Your task to perform on an android device: empty trash in the gmail app Image 0: 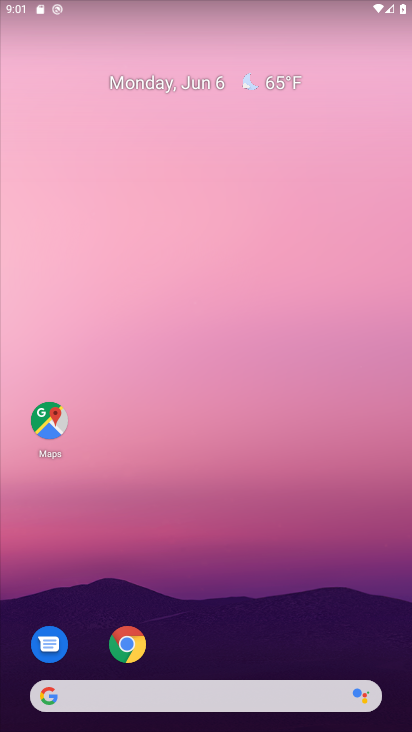
Step 0: drag from (368, 598) to (331, 93)
Your task to perform on an android device: empty trash in the gmail app Image 1: 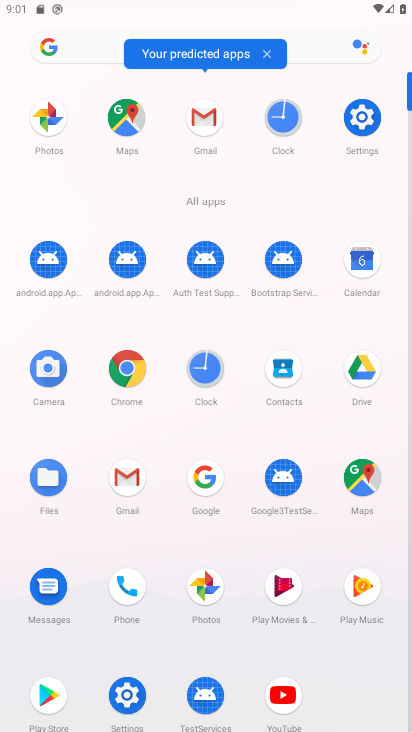
Step 1: click (128, 479)
Your task to perform on an android device: empty trash in the gmail app Image 2: 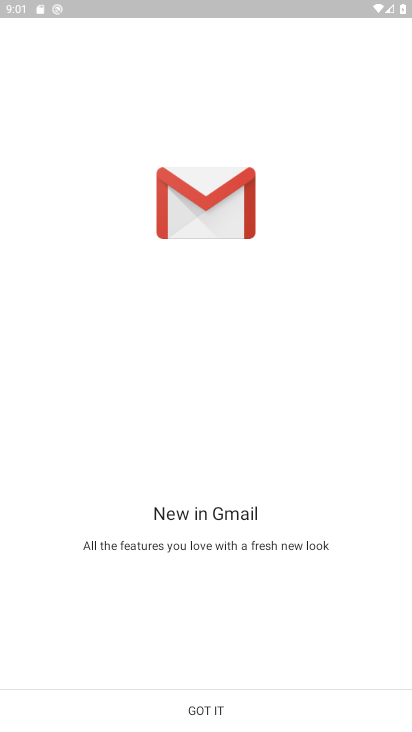
Step 2: click (219, 718)
Your task to perform on an android device: empty trash in the gmail app Image 3: 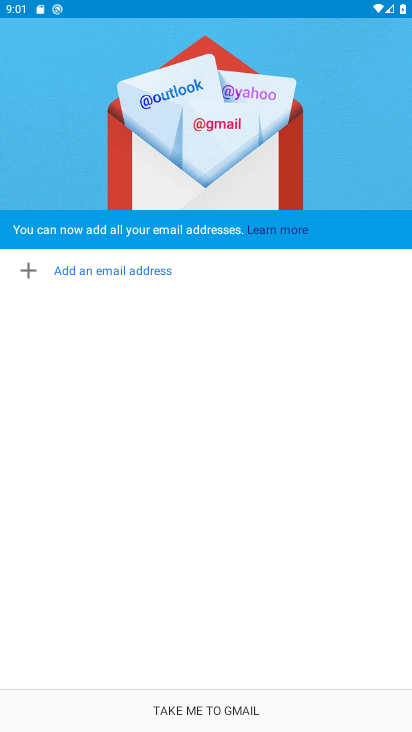
Step 3: click (216, 712)
Your task to perform on an android device: empty trash in the gmail app Image 4: 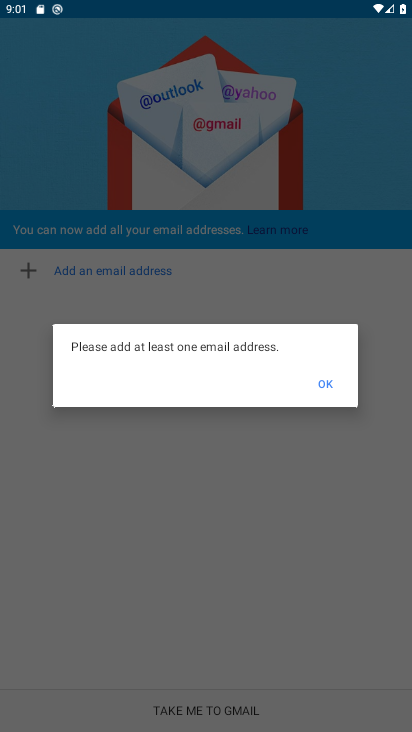
Step 4: click (324, 389)
Your task to perform on an android device: empty trash in the gmail app Image 5: 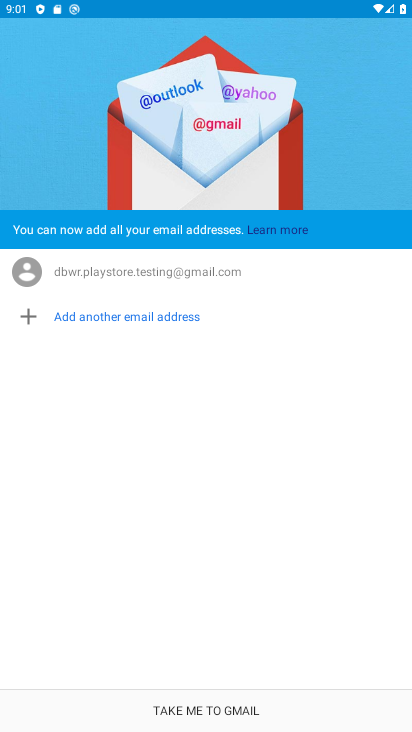
Step 5: click (256, 708)
Your task to perform on an android device: empty trash in the gmail app Image 6: 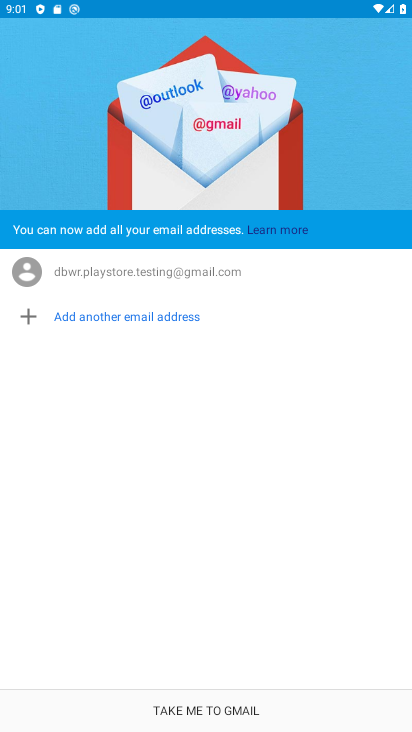
Step 6: click (198, 708)
Your task to perform on an android device: empty trash in the gmail app Image 7: 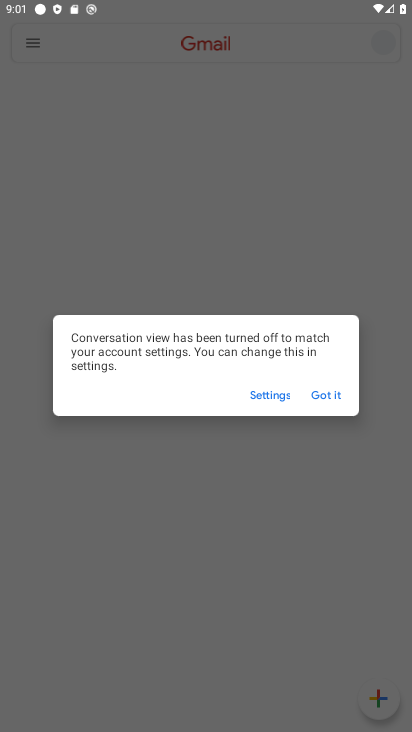
Step 7: click (340, 400)
Your task to perform on an android device: empty trash in the gmail app Image 8: 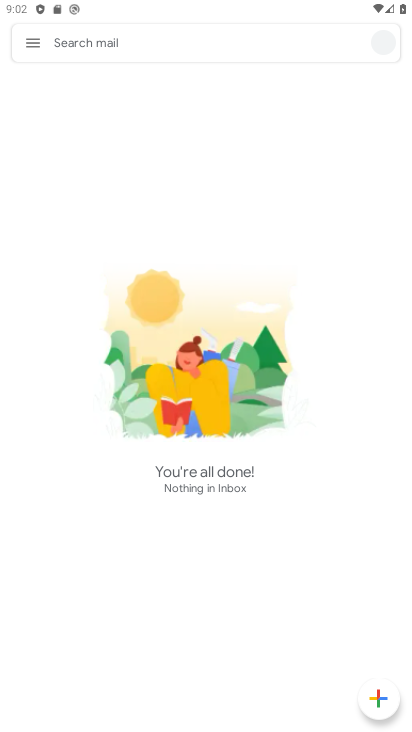
Step 8: click (45, 42)
Your task to perform on an android device: empty trash in the gmail app Image 9: 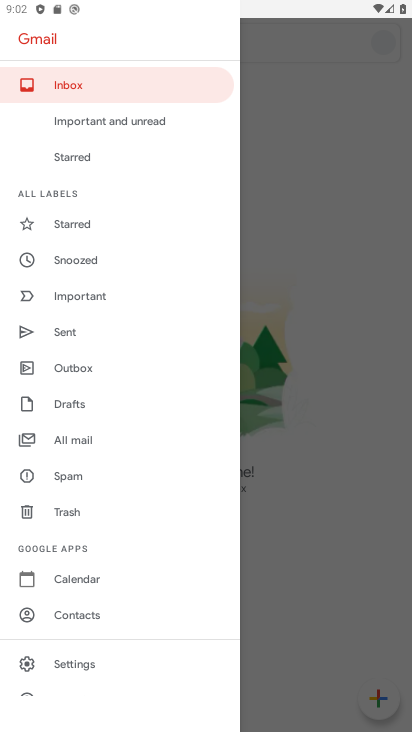
Step 9: click (87, 513)
Your task to perform on an android device: empty trash in the gmail app Image 10: 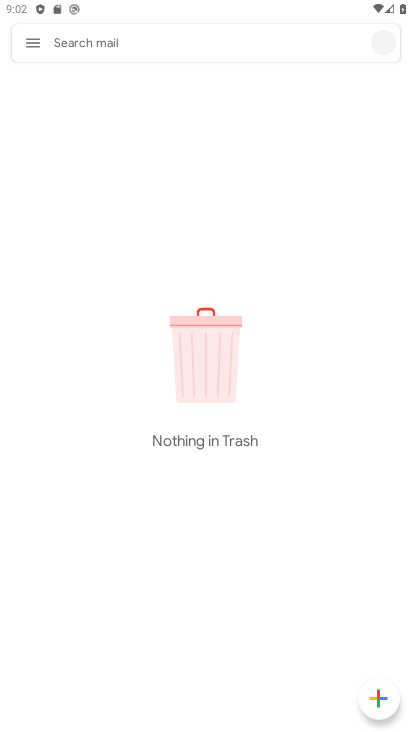
Step 10: task complete